Your task to perform on an android device: Show me popular games on the Play Store Image 0: 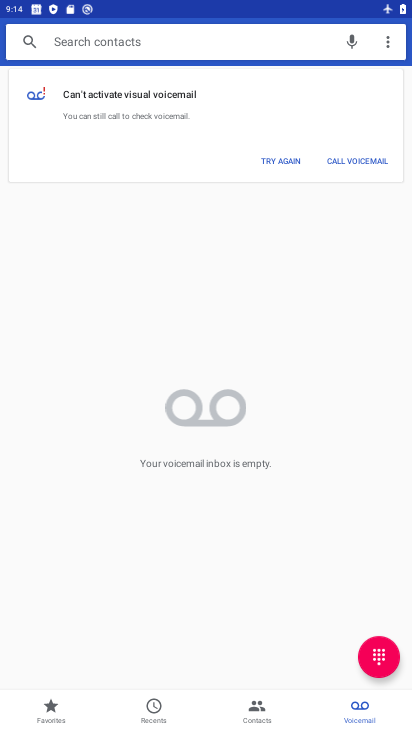
Step 0: press home button
Your task to perform on an android device: Show me popular games on the Play Store Image 1: 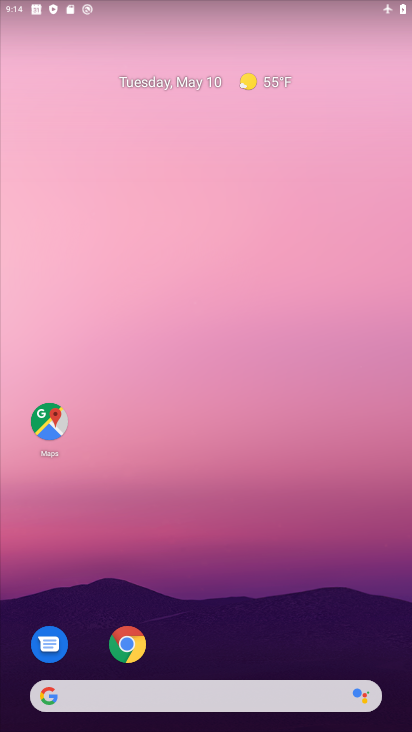
Step 1: drag from (397, 524) to (393, 292)
Your task to perform on an android device: Show me popular games on the Play Store Image 2: 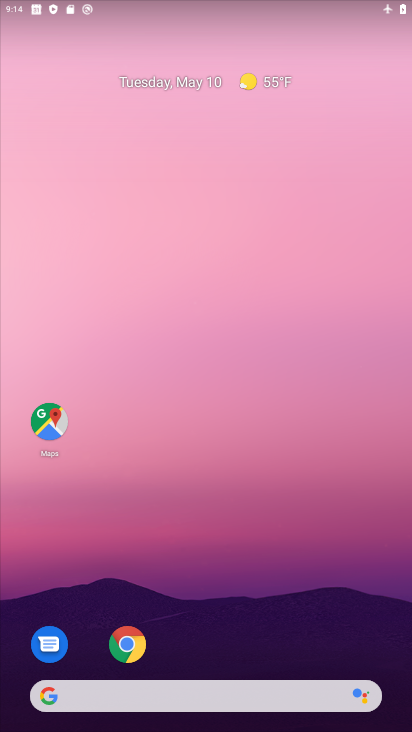
Step 2: drag from (291, 393) to (273, 160)
Your task to perform on an android device: Show me popular games on the Play Store Image 3: 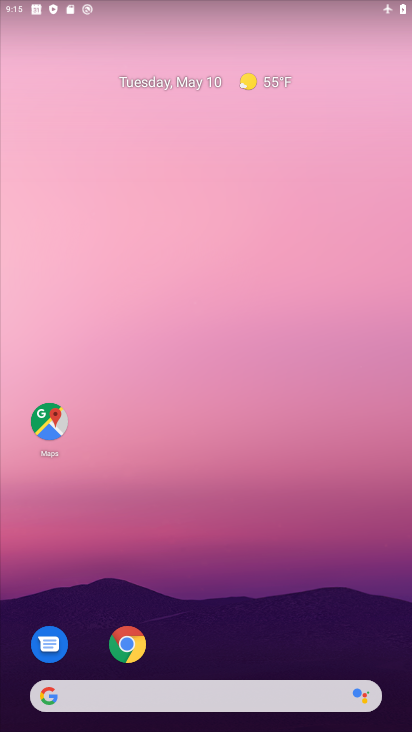
Step 3: drag from (268, 552) to (142, 103)
Your task to perform on an android device: Show me popular games on the Play Store Image 4: 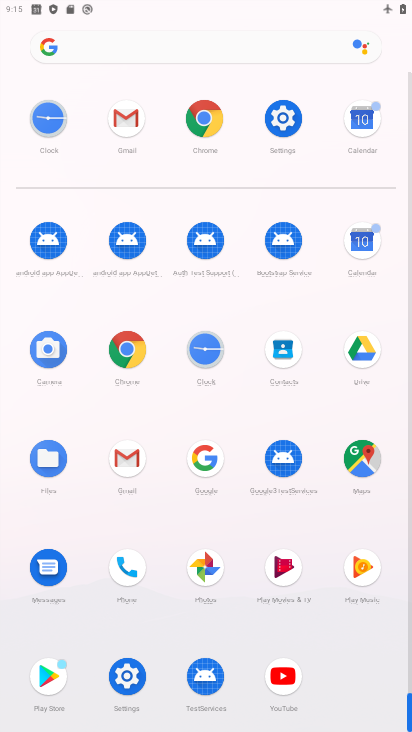
Step 4: click (66, 681)
Your task to perform on an android device: Show me popular games on the Play Store Image 5: 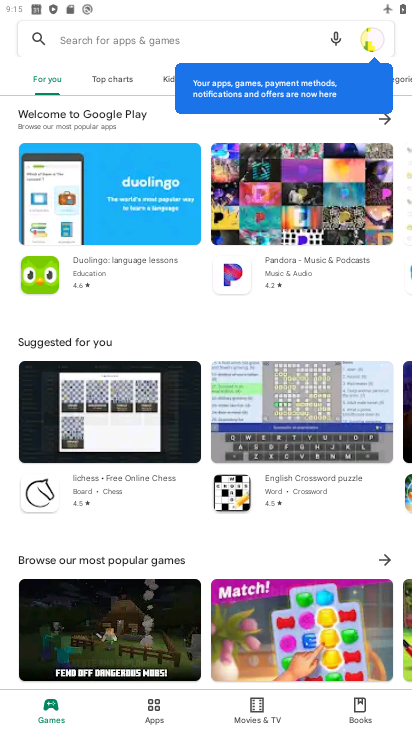
Step 5: task complete